Your task to perform on an android device: Open Amazon Image 0: 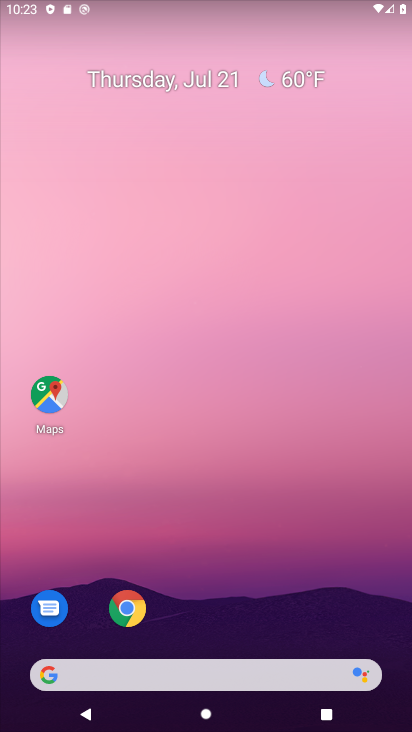
Step 0: drag from (201, 604) to (201, 2)
Your task to perform on an android device: Open Amazon Image 1: 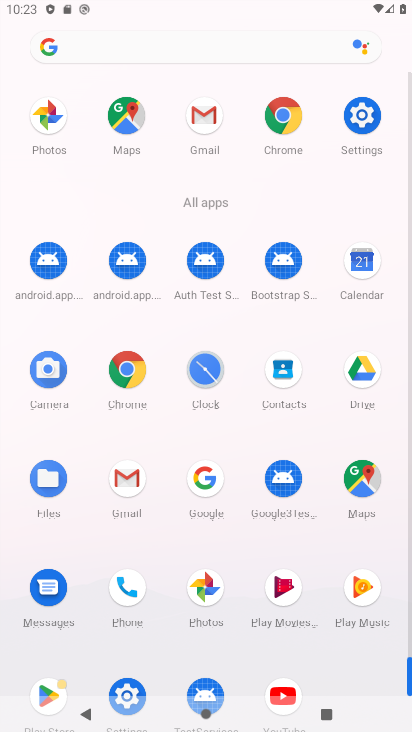
Step 1: click (266, 122)
Your task to perform on an android device: Open Amazon Image 2: 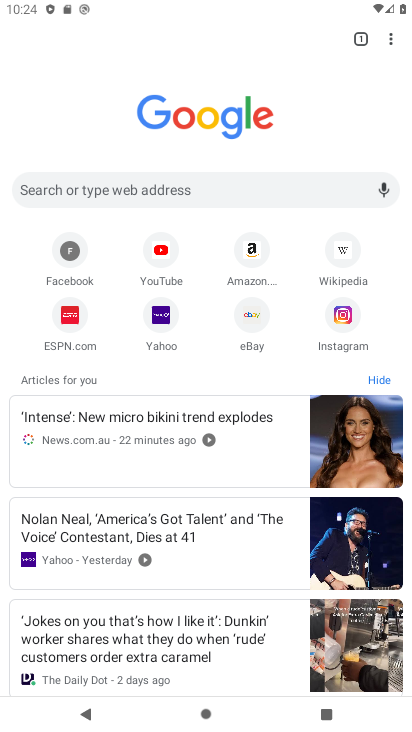
Step 2: click (255, 263)
Your task to perform on an android device: Open Amazon Image 3: 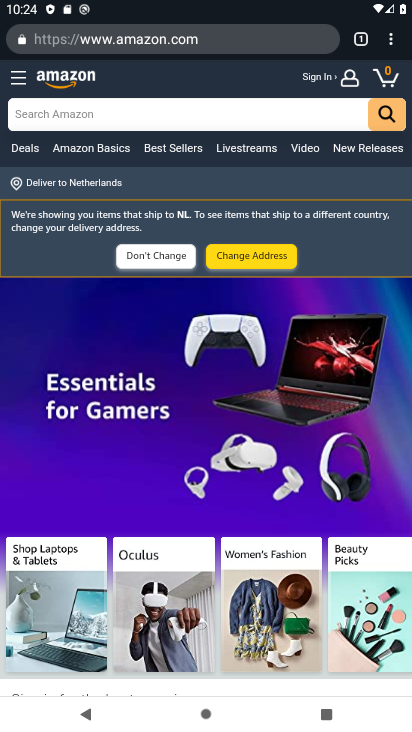
Step 3: task complete